Your task to perform on an android device: allow notifications from all sites in the chrome app Image 0: 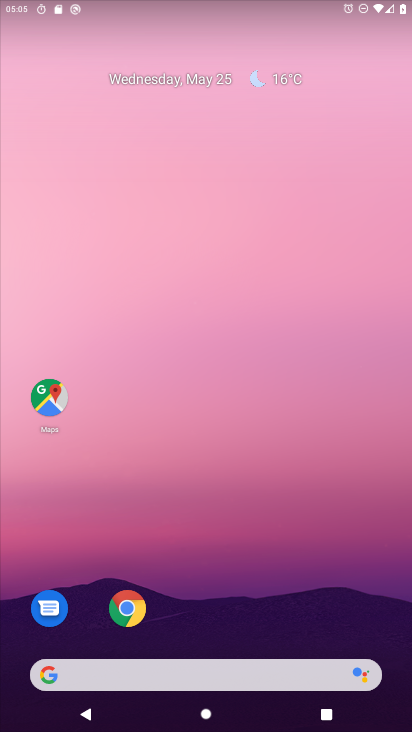
Step 0: click (129, 608)
Your task to perform on an android device: allow notifications from all sites in the chrome app Image 1: 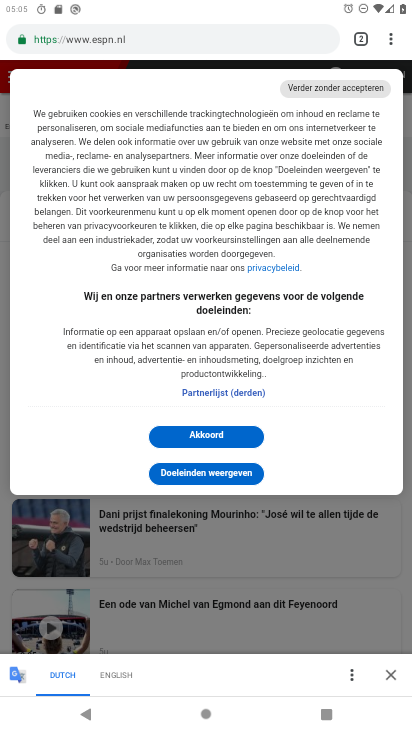
Step 1: click (396, 38)
Your task to perform on an android device: allow notifications from all sites in the chrome app Image 2: 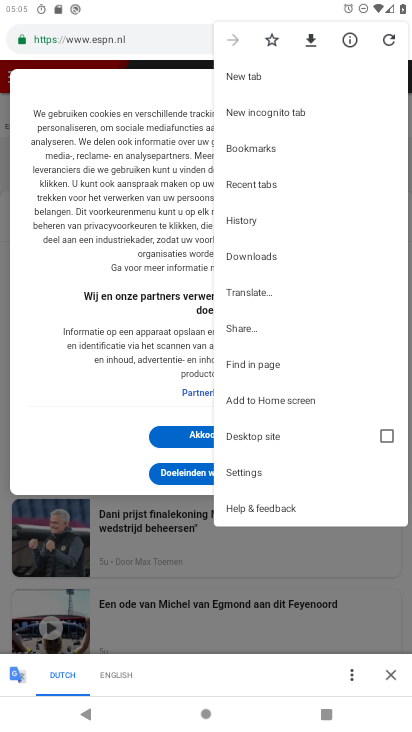
Step 2: click (251, 473)
Your task to perform on an android device: allow notifications from all sites in the chrome app Image 3: 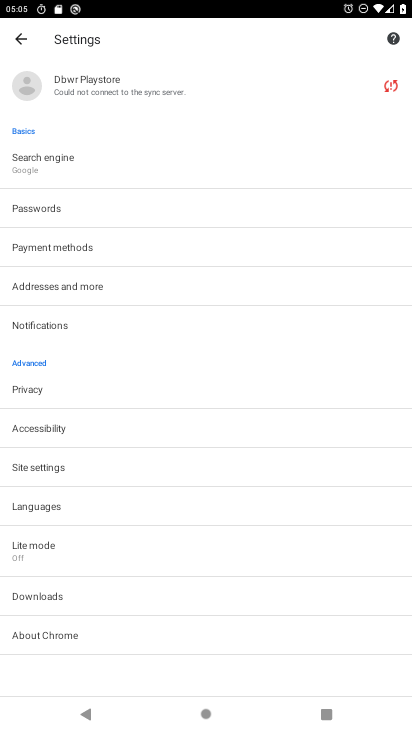
Step 3: click (50, 329)
Your task to perform on an android device: allow notifications from all sites in the chrome app Image 4: 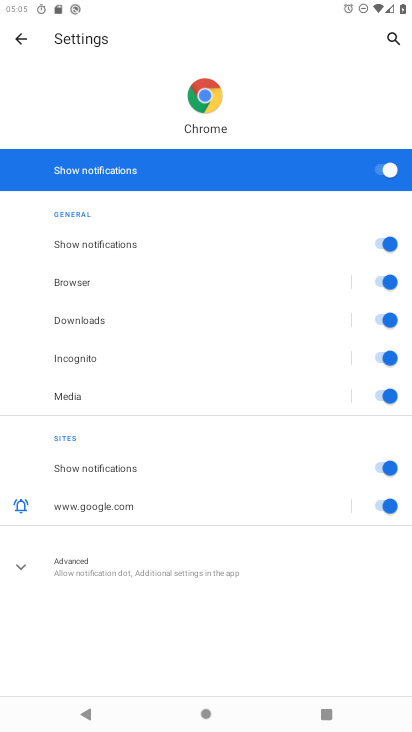
Step 4: task complete